Your task to perform on an android device: Open Chrome and go to settings Image 0: 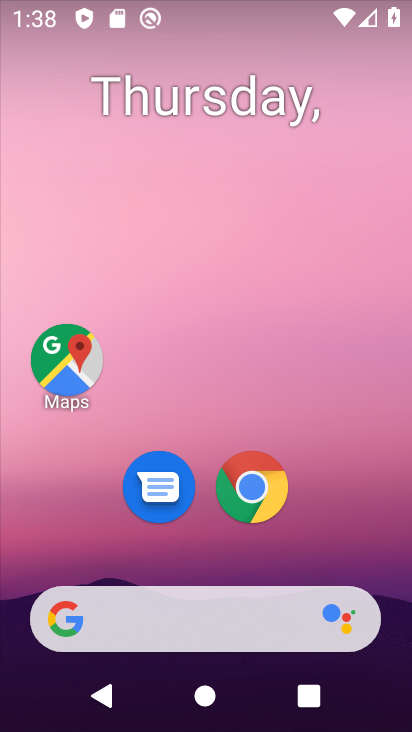
Step 0: click (248, 484)
Your task to perform on an android device: Open Chrome and go to settings Image 1: 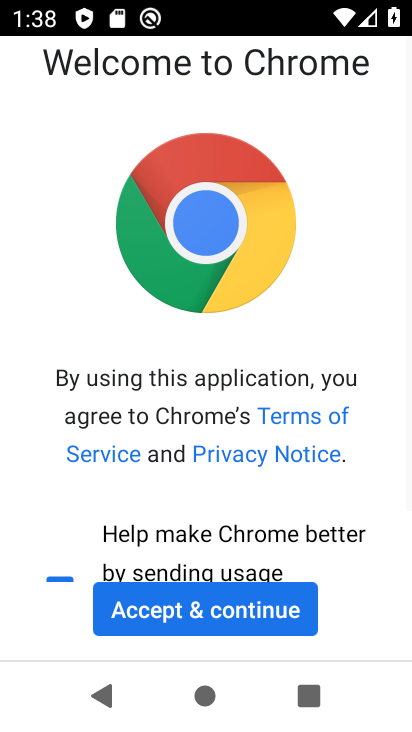
Step 1: click (277, 606)
Your task to perform on an android device: Open Chrome and go to settings Image 2: 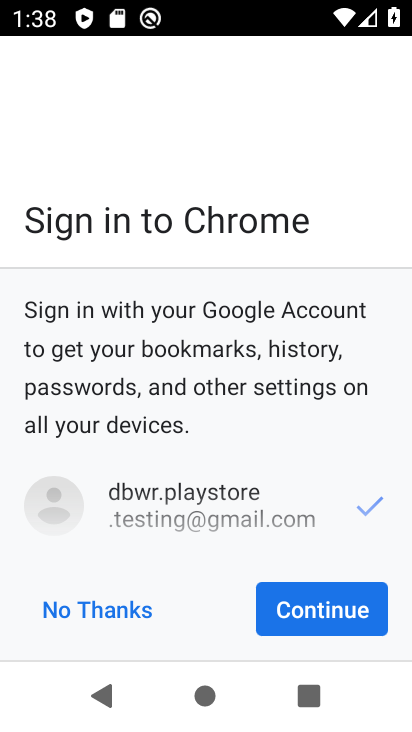
Step 2: click (300, 616)
Your task to perform on an android device: Open Chrome and go to settings Image 3: 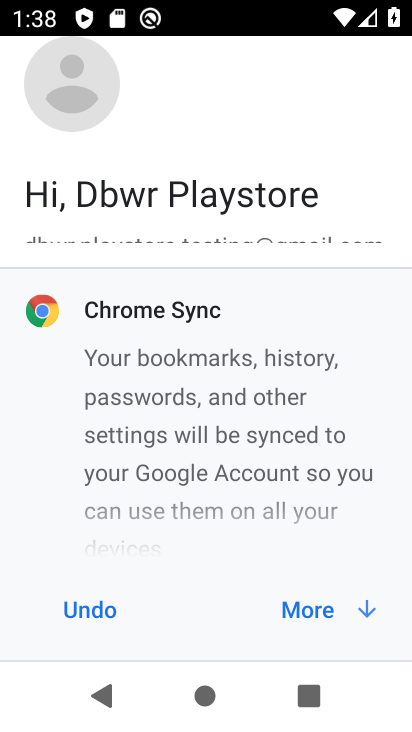
Step 3: click (300, 616)
Your task to perform on an android device: Open Chrome and go to settings Image 4: 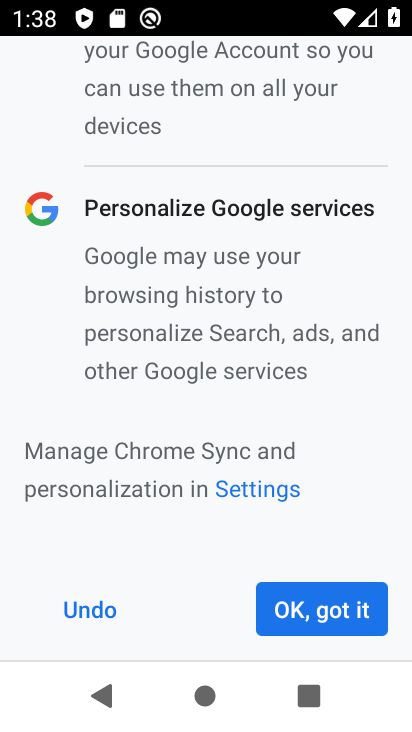
Step 4: click (297, 612)
Your task to perform on an android device: Open Chrome and go to settings Image 5: 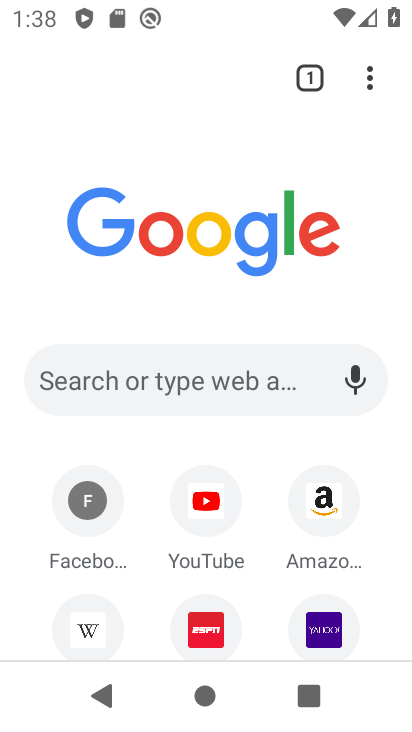
Step 5: click (370, 96)
Your task to perform on an android device: Open Chrome and go to settings Image 6: 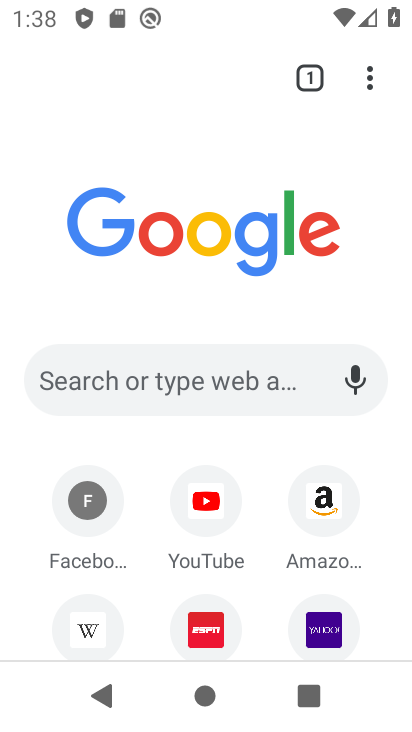
Step 6: click (366, 70)
Your task to perform on an android device: Open Chrome and go to settings Image 7: 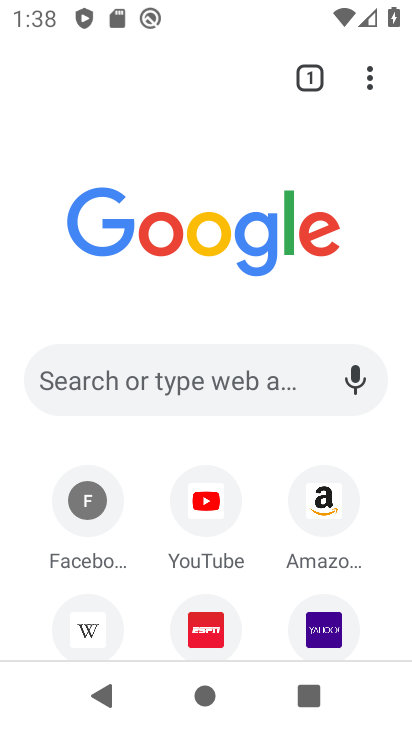
Step 7: click (367, 70)
Your task to perform on an android device: Open Chrome and go to settings Image 8: 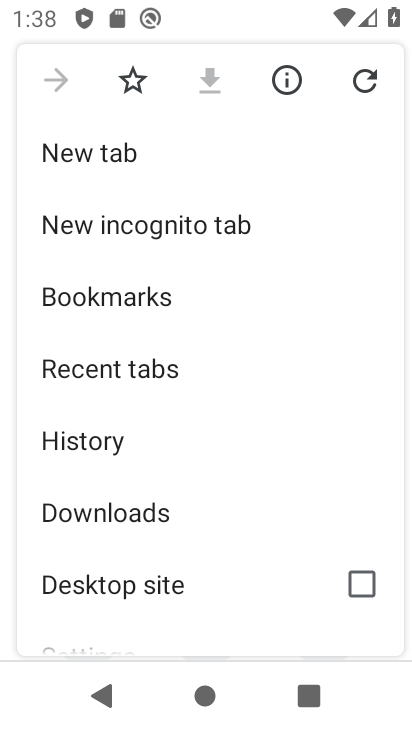
Step 8: drag from (164, 551) to (189, 234)
Your task to perform on an android device: Open Chrome and go to settings Image 9: 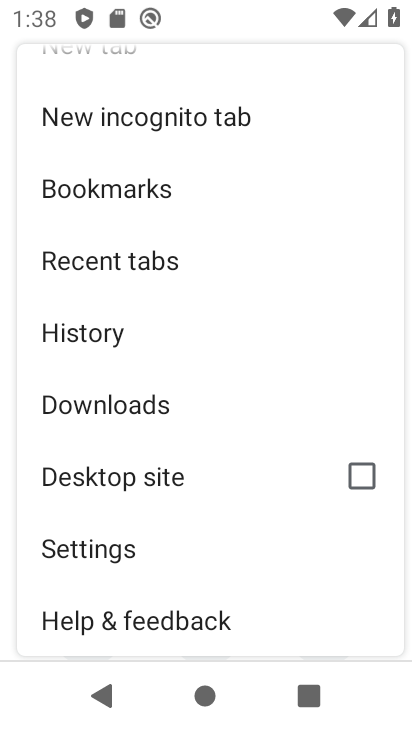
Step 9: click (94, 539)
Your task to perform on an android device: Open Chrome and go to settings Image 10: 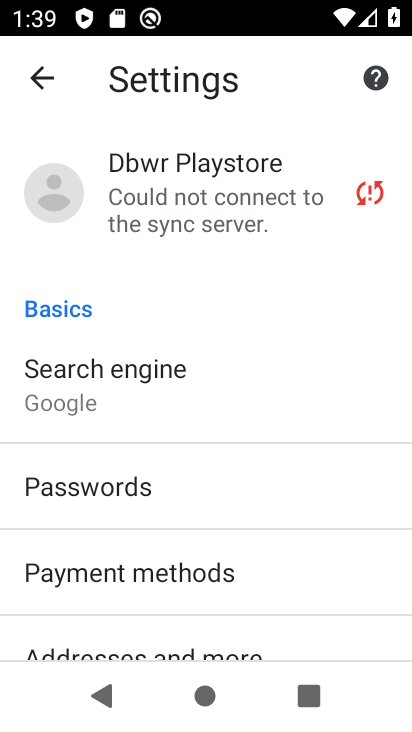
Step 10: task complete